Your task to perform on an android device: Open calendar and show me the fourth week of next month Image 0: 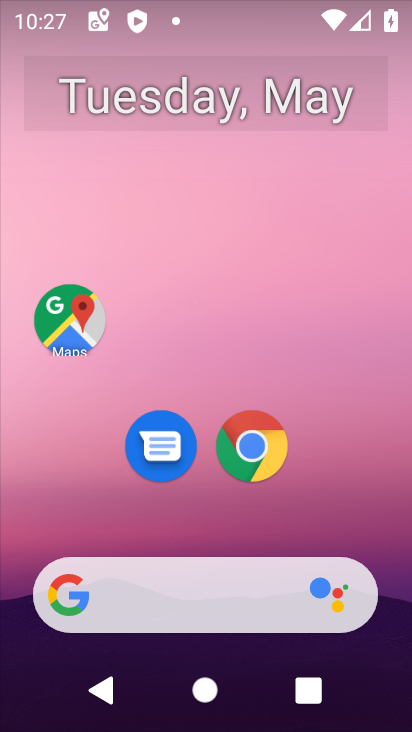
Step 0: drag from (203, 521) to (127, 2)
Your task to perform on an android device: Open calendar and show me the fourth week of next month Image 1: 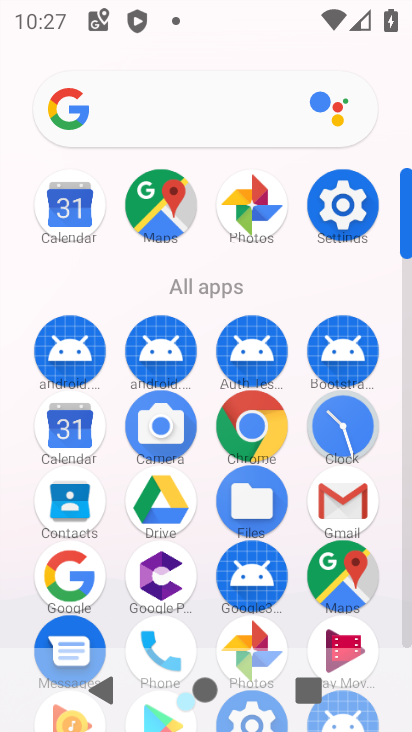
Step 1: click (72, 438)
Your task to perform on an android device: Open calendar and show me the fourth week of next month Image 2: 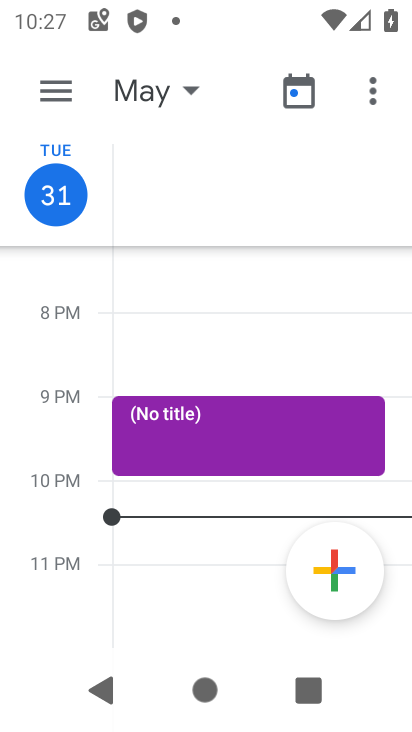
Step 2: click (58, 82)
Your task to perform on an android device: Open calendar and show me the fourth week of next month Image 3: 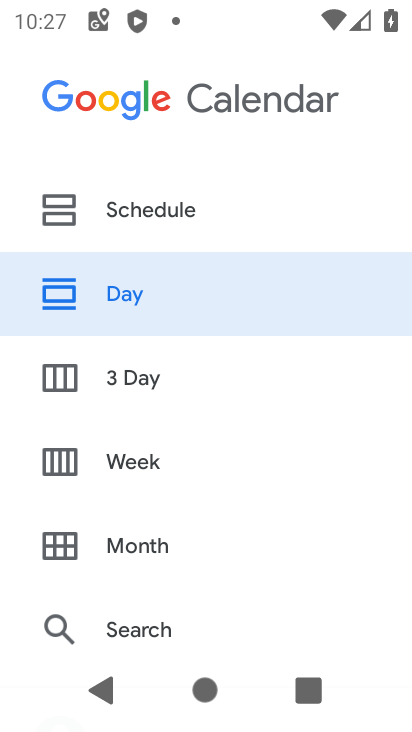
Step 3: click (129, 469)
Your task to perform on an android device: Open calendar and show me the fourth week of next month Image 4: 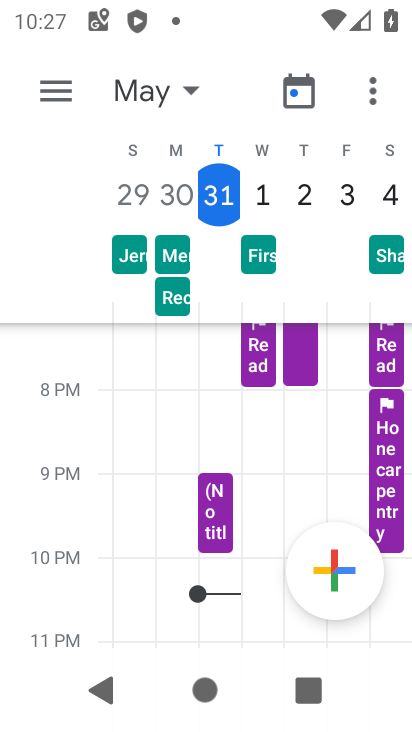
Step 4: task complete